Your task to perform on an android device: open app "Viber Messenger" (install if not already installed), go to login, and select forgot password Image 0: 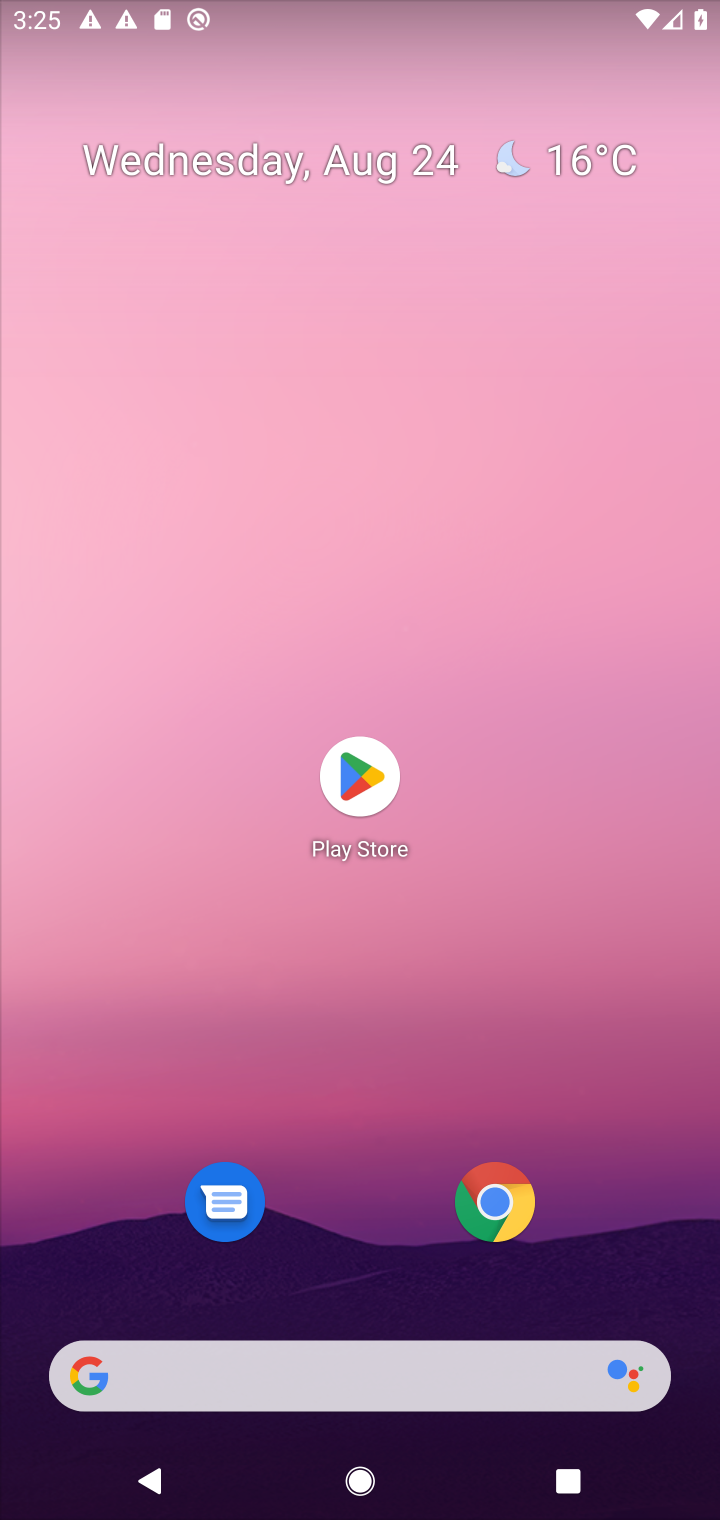
Step 0: click (351, 765)
Your task to perform on an android device: open app "Viber Messenger" (install if not already installed), go to login, and select forgot password Image 1: 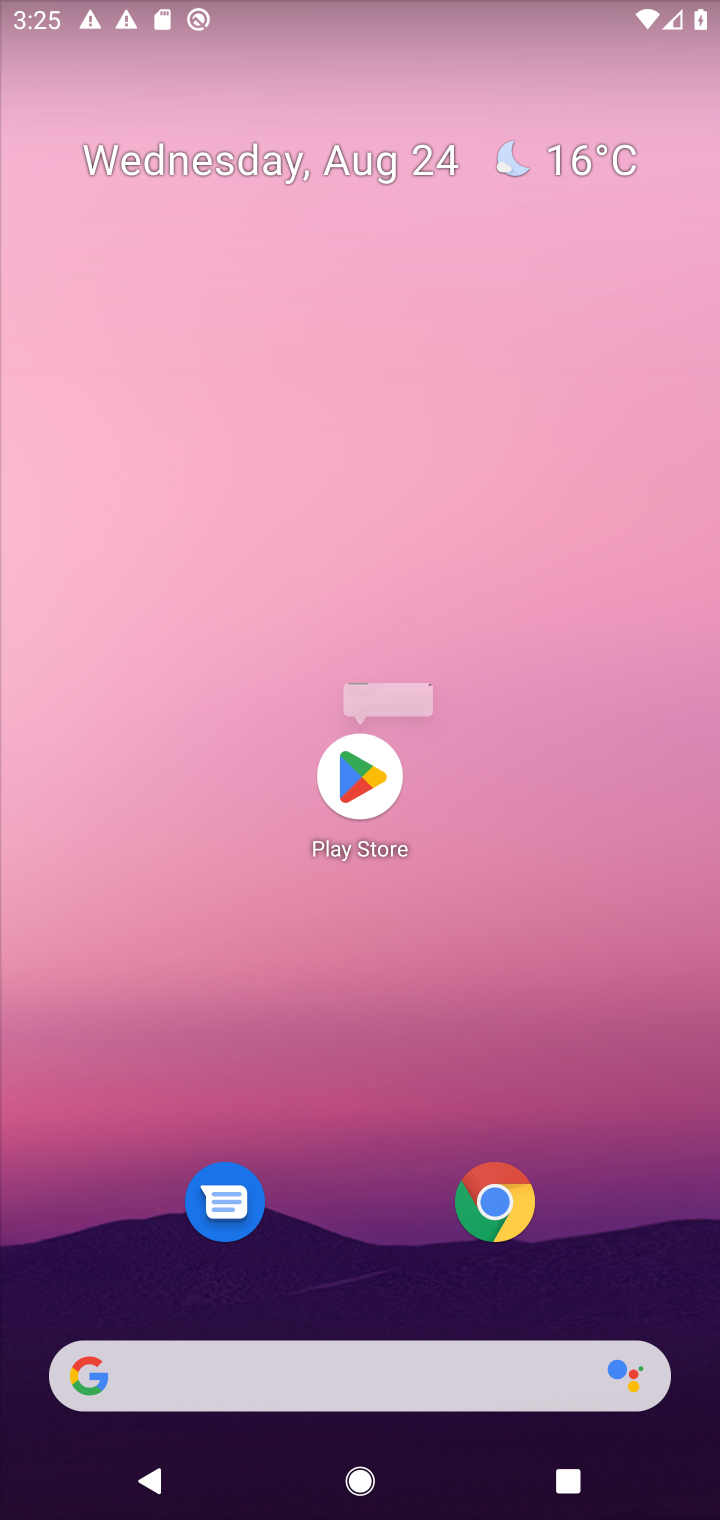
Step 1: click (351, 769)
Your task to perform on an android device: open app "Viber Messenger" (install if not already installed), go to login, and select forgot password Image 2: 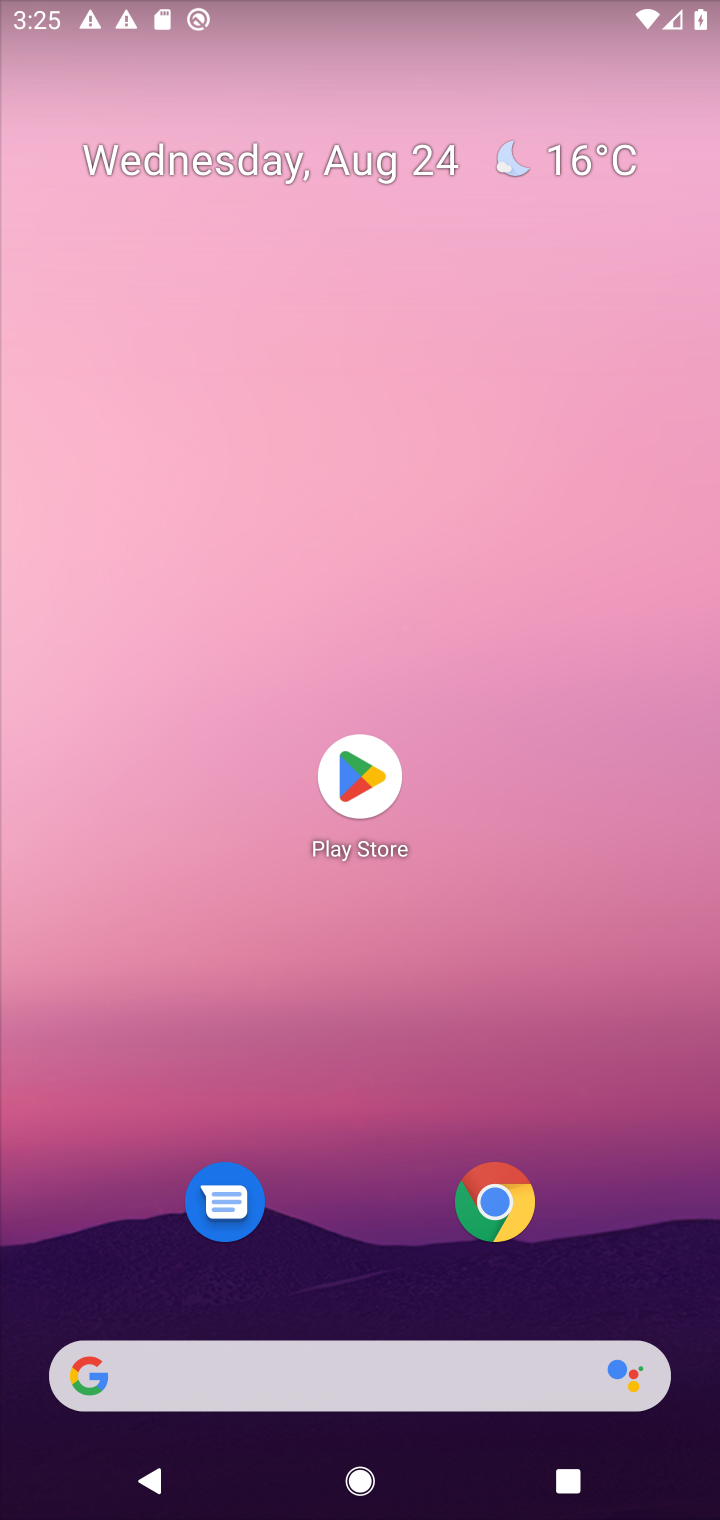
Step 2: click (351, 769)
Your task to perform on an android device: open app "Viber Messenger" (install if not already installed), go to login, and select forgot password Image 3: 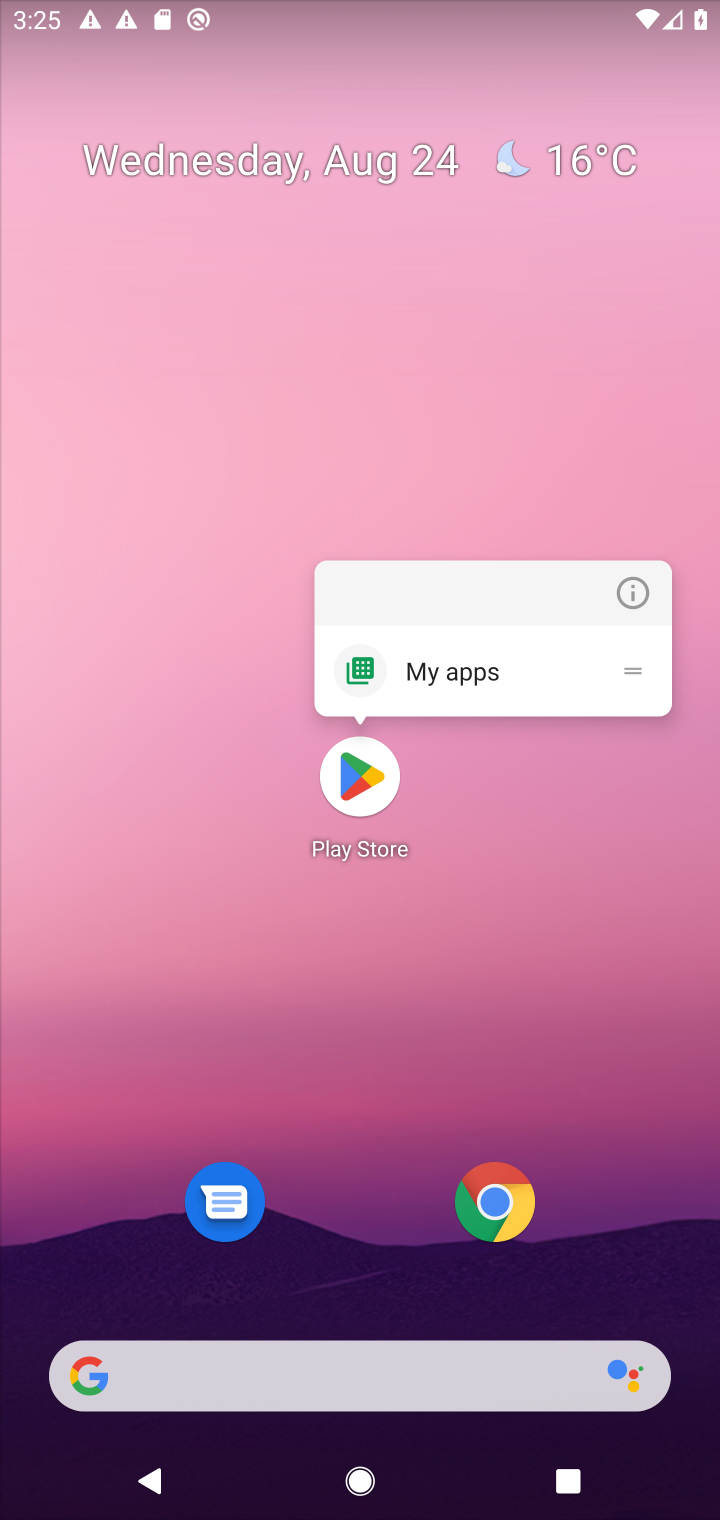
Step 3: click (351, 769)
Your task to perform on an android device: open app "Viber Messenger" (install if not already installed), go to login, and select forgot password Image 4: 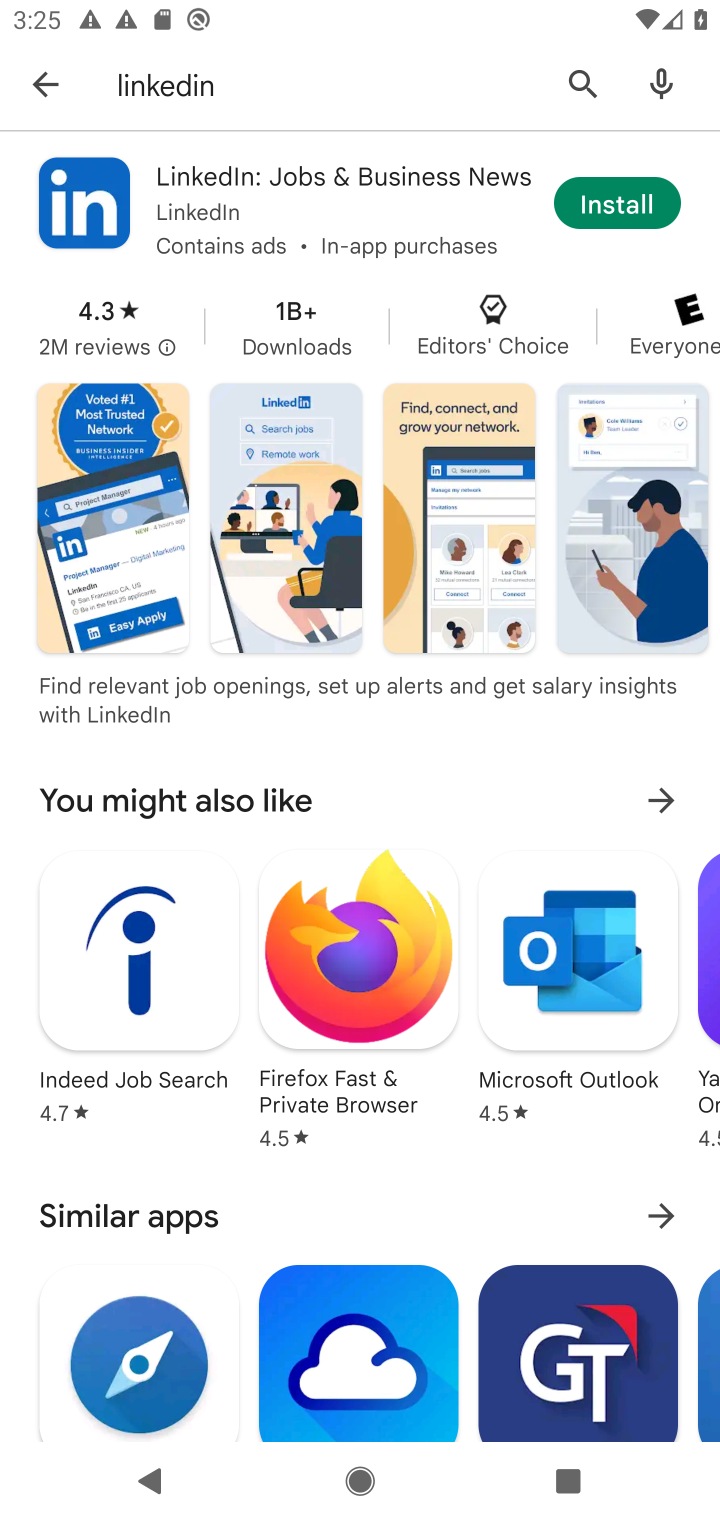
Step 4: click (572, 77)
Your task to perform on an android device: open app "Viber Messenger" (install if not already installed), go to login, and select forgot password Image 5: 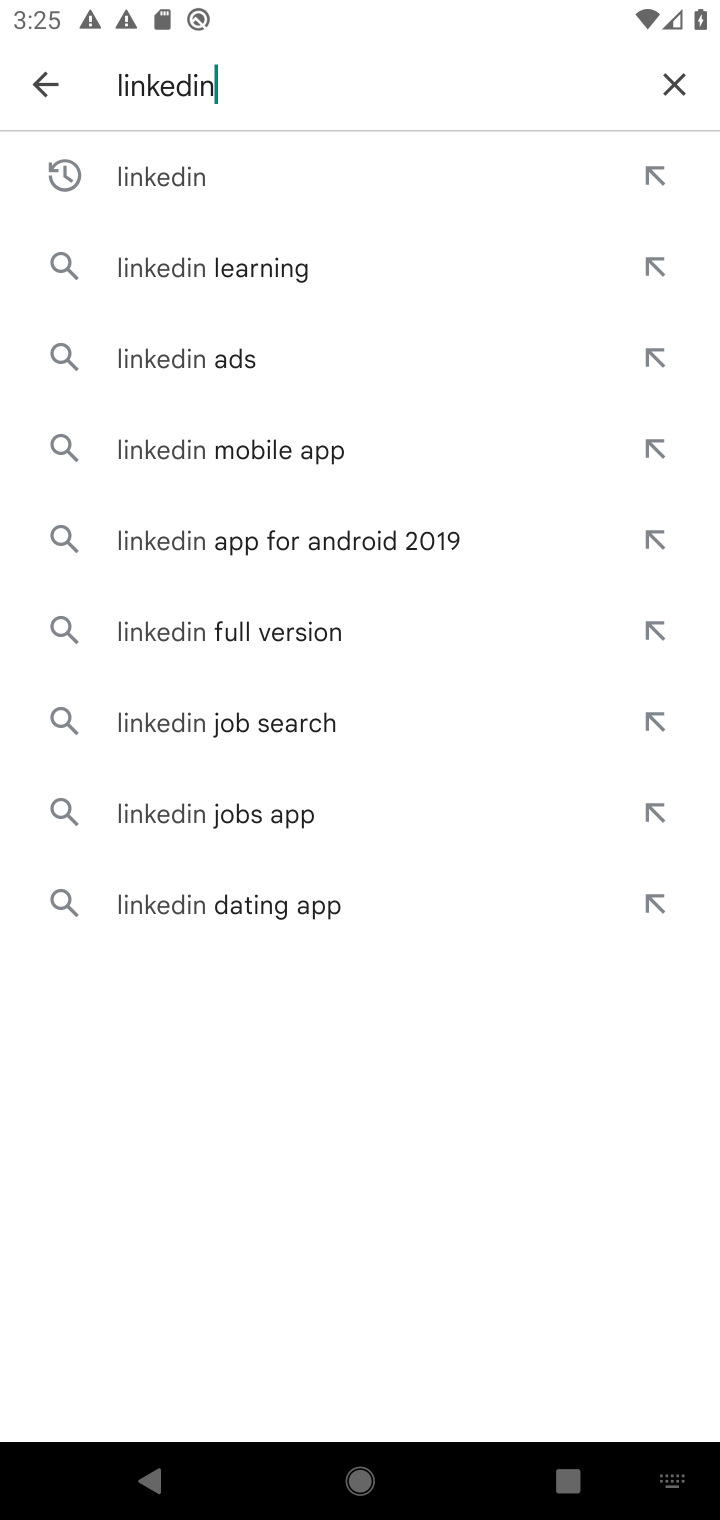
Step 5: click (663, 64)
Your task to perform on an android device: open app "Viber Messenger" (install if not already installed), go to login, and select forgot password Image 6: 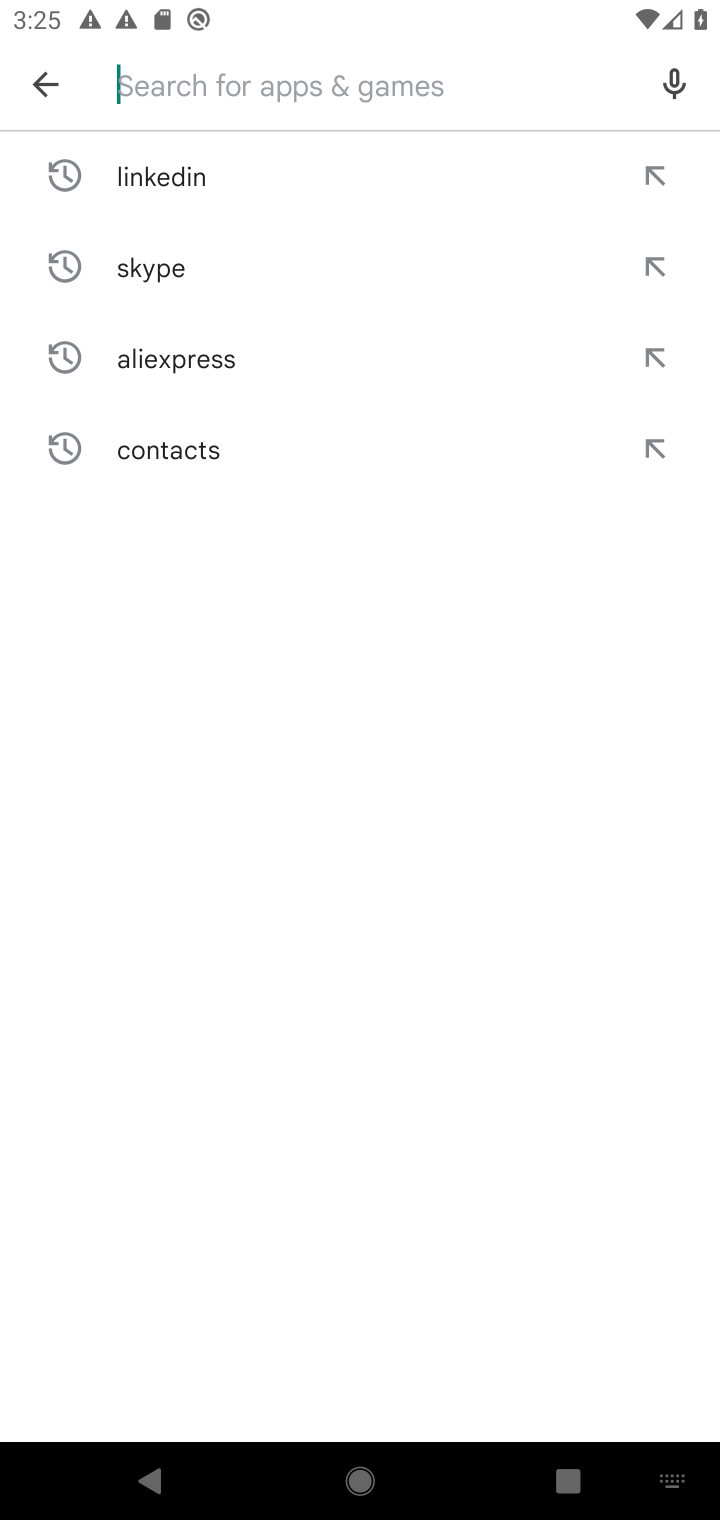
Step 6: type "Viber Messenger"
Your task to perform on an android device: open app "Viber Messenger" (install if not already installed), go to login, and select forgot password Image 7: 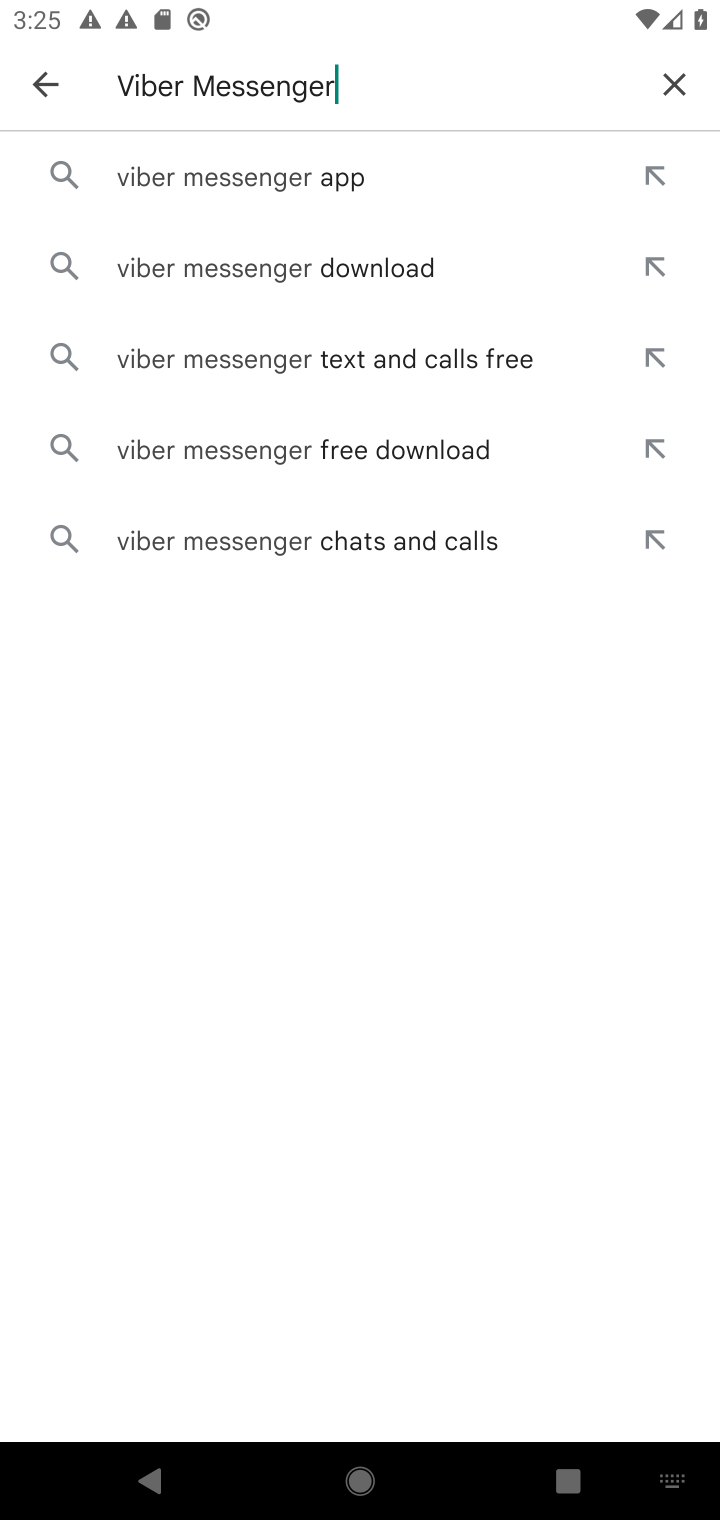
Step 7: click (315, 168)
Your task to perform on an android device: open app "Viber Messenger" (install if not already installed), go to login, and select forgot password Image 8: 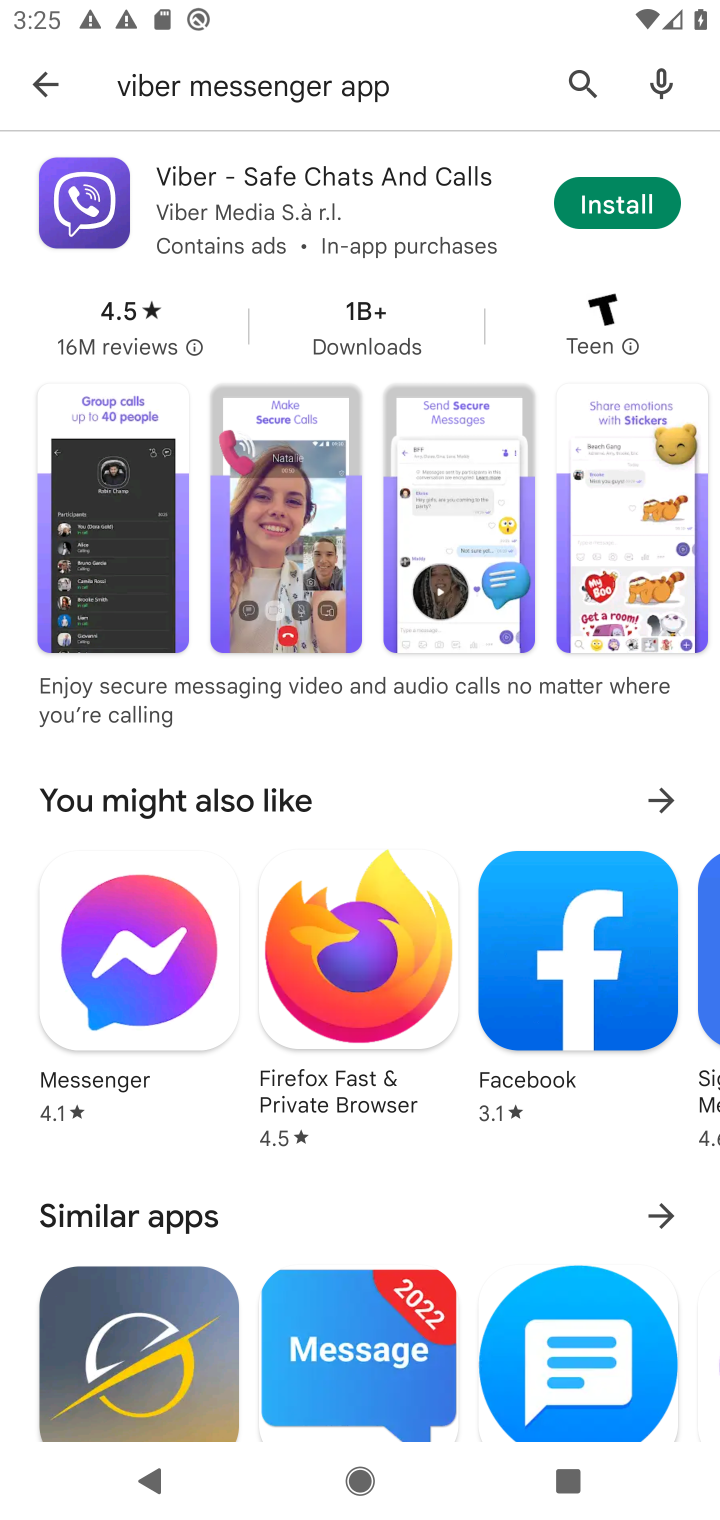
Step 8: click (613, 205)
Your task to perform on an android device: open app "Viber Messenger" (install if not already installed), go to login, and select forgot password Image 9: 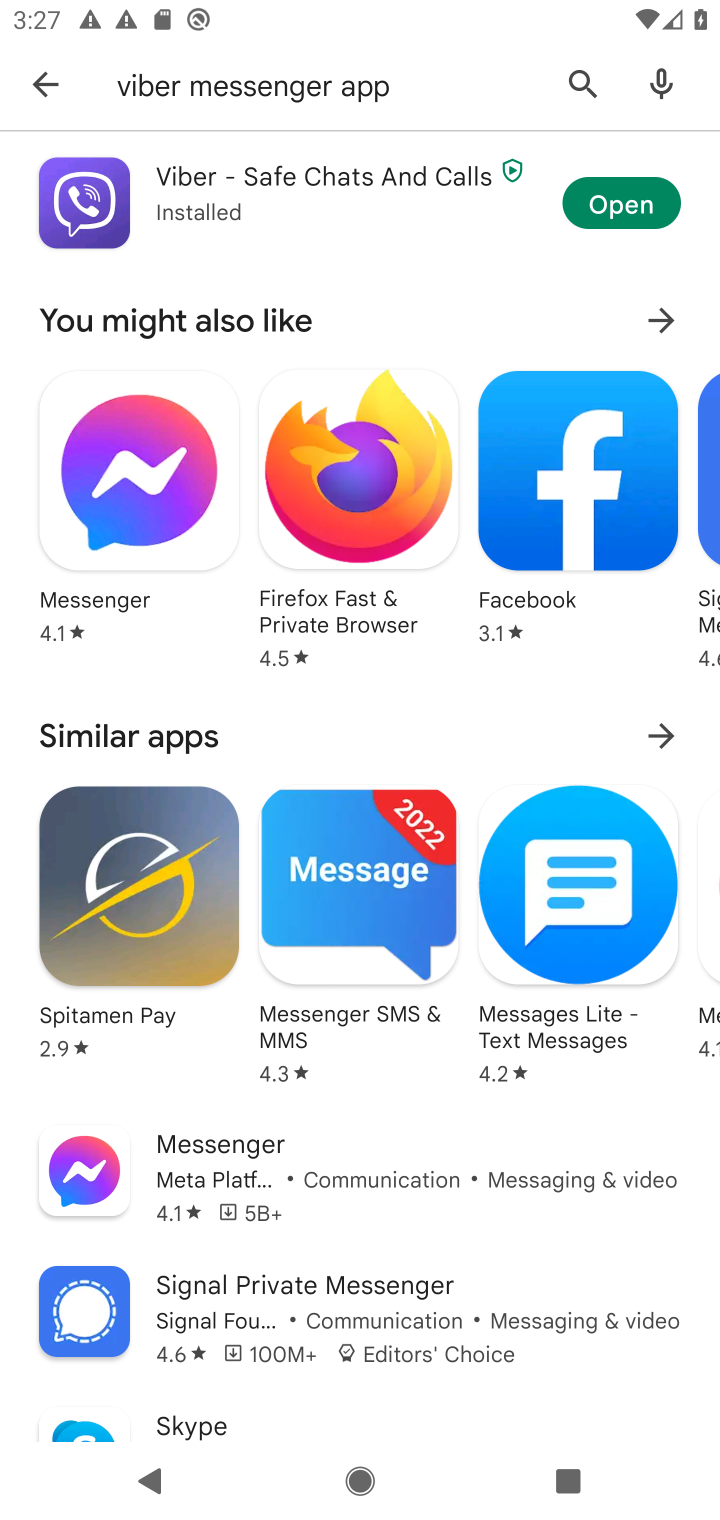
Step 9: click (658, 210)
Your task to perform on an android device: open app "Viber Messenger" (install if not already installed), go to login, and select forgot password Image 10: 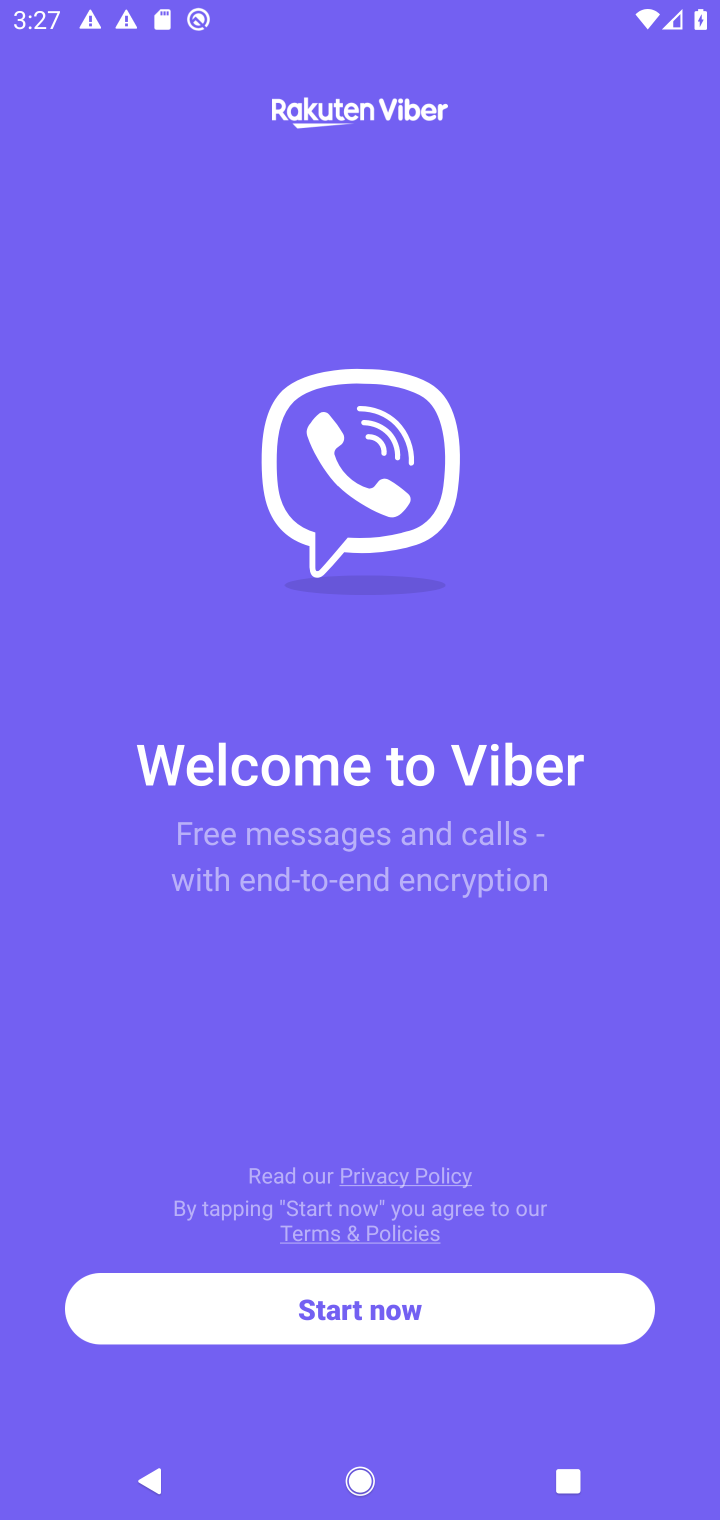
Step 10: click (423, 1302)
Your task to perform on an android device: open app "Viber Messenger" (install if not already installed), go to login, and select forgot password Image 11: 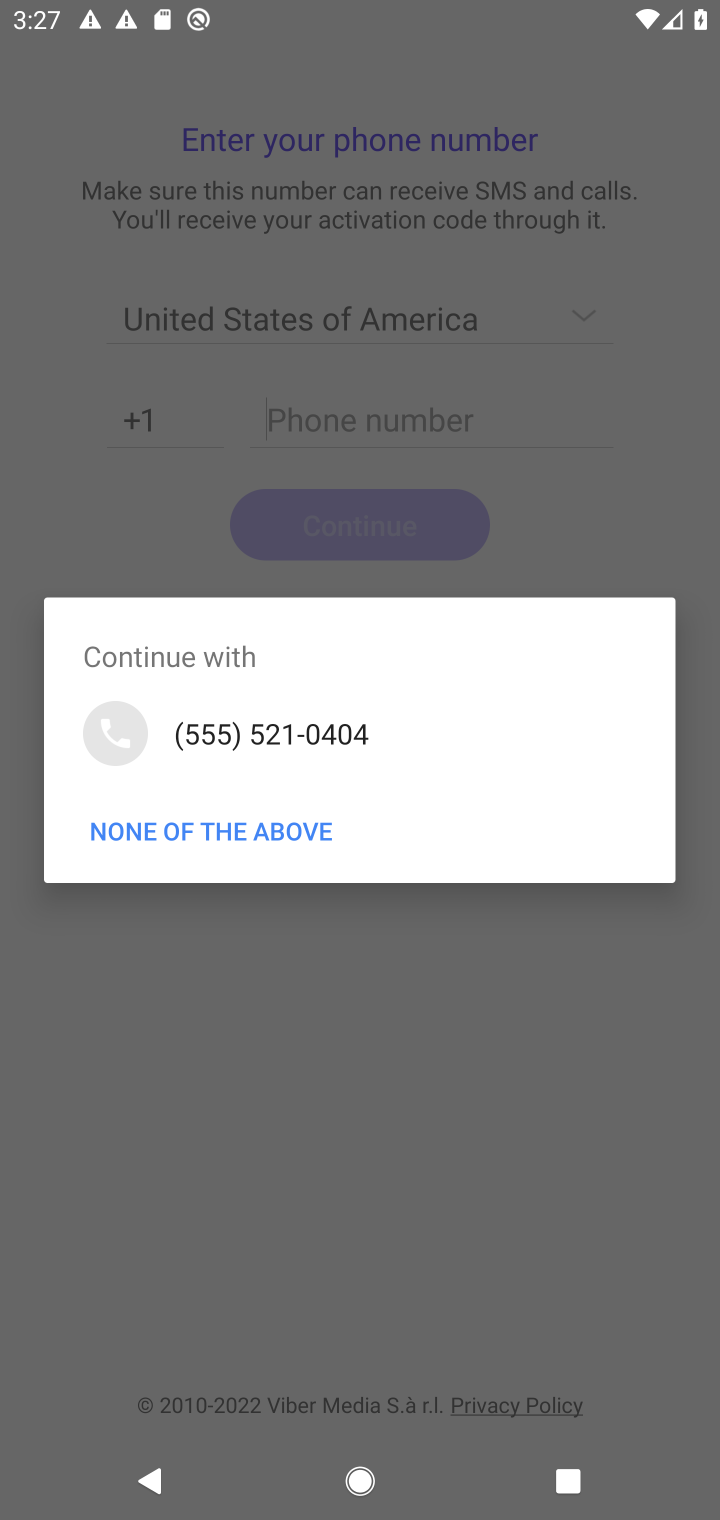
Step 11: task complete